Your task to perform on an android device: turn notification dots on Image 0: 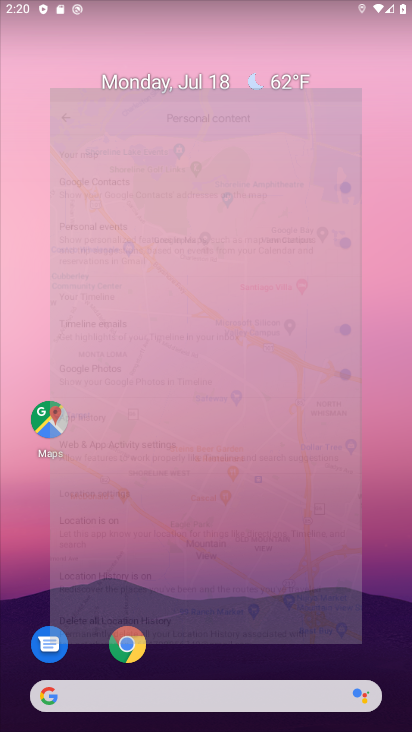
Step 0: drag from (244, 425) to (236, 373)
Your task to perform on an android device: turn notification dots on Image 1: 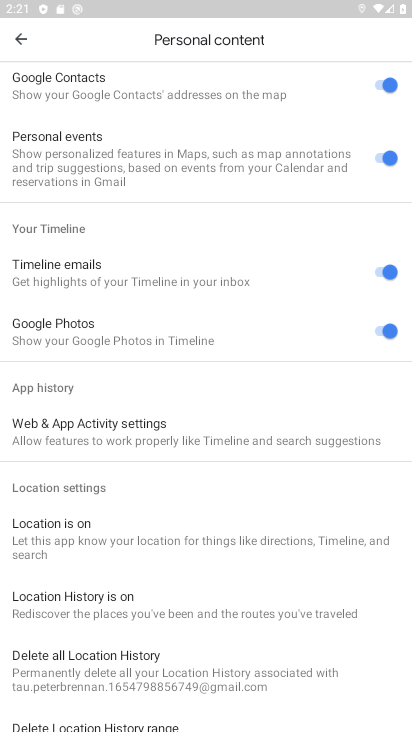
Step 1: click (18, 36)
Your task to perform on an android device: turn notification dots on Image 2: 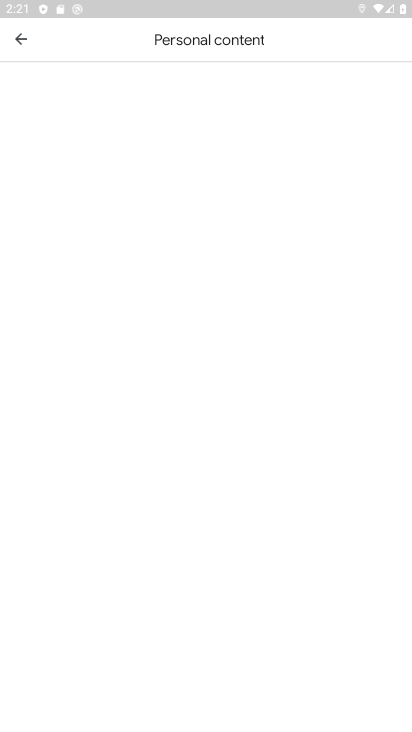
Step 2: click (22, 36)
Your task to perform on an android device: turn notification dots on Image 3: 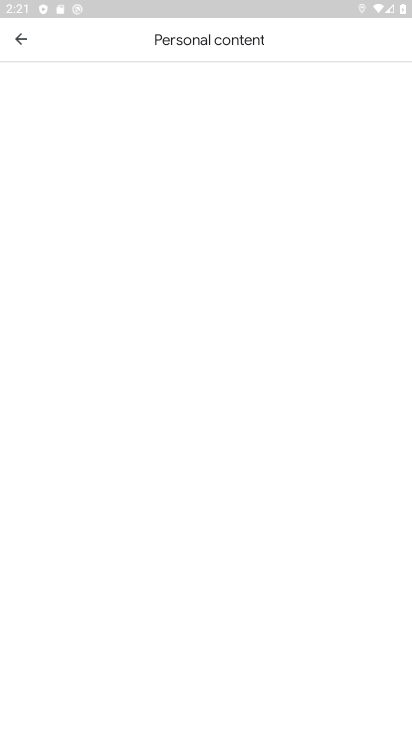
Step 3: click (22, 36)
Your task to perform on an android device: turn notification dots on Image 4: 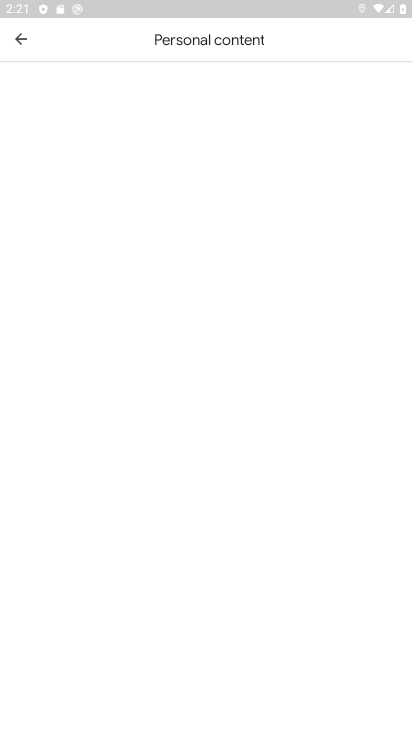
Step 4: click (22, 36)
Your task to perform on an android device: turn notification dots on Image 5: 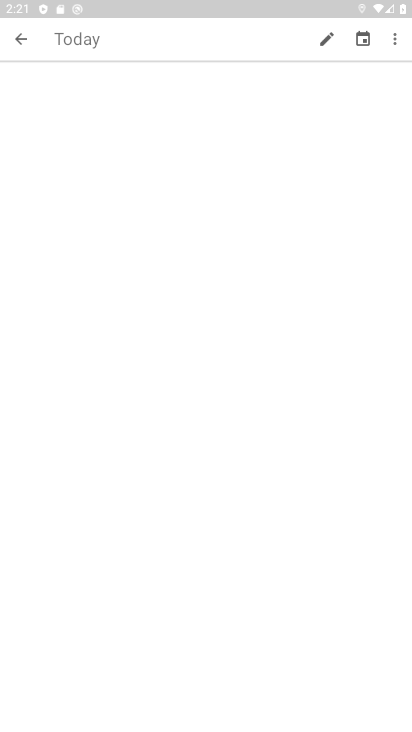
Step 5: click (22, 36)
Your task to perform on an android device: turn notification dots on Image 6: 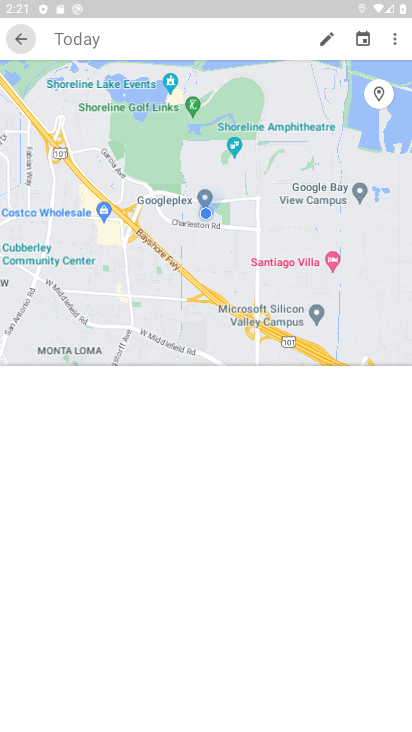
Step 6: click (22, 36)
Your task to perform on an android device: turn notification dots on Image 7: 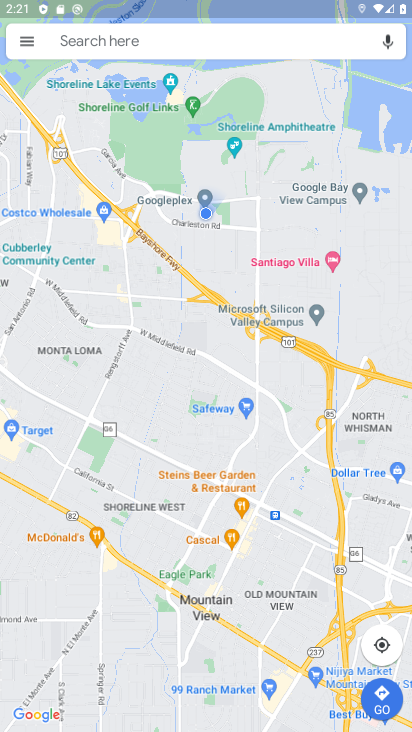
Step 7: click (22, 36)
Your task to perform on an android device: turn notification dots on Image 8: 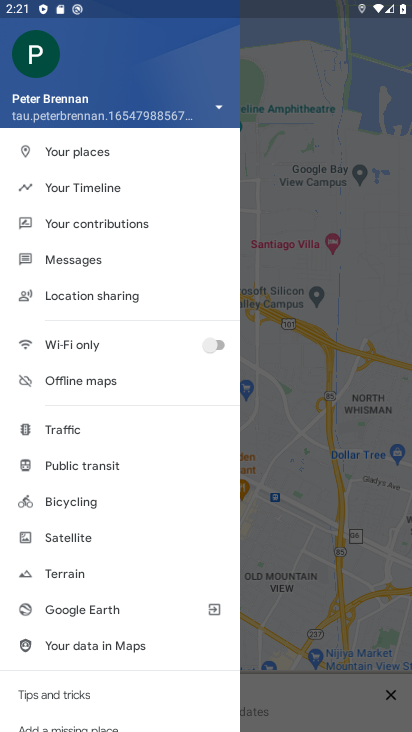
Step 8: press home button
Your task to perform on an android device: turn notification dots on Image 9: 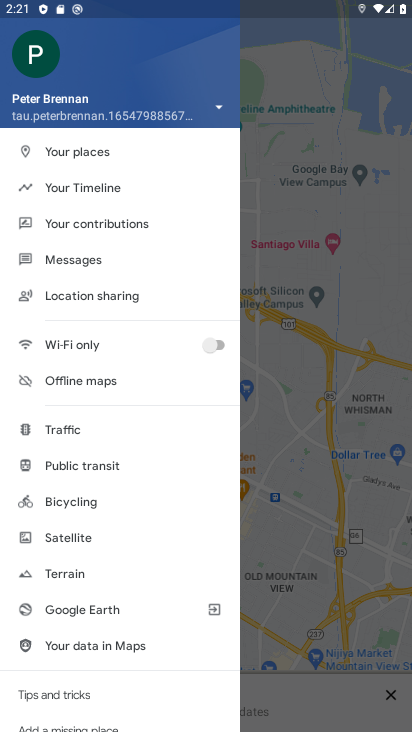
Step 9: press home button
Your task to perform on an android device: turn notification dots on Image 10: 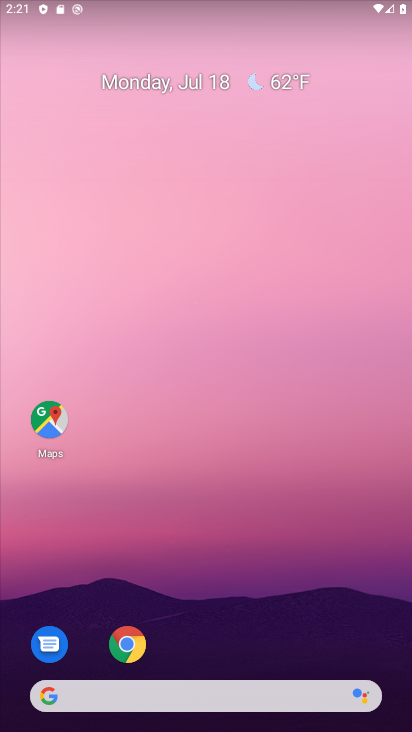
Step 10: drag from (196, 616) to (232, 130)
Your task to perform on an android device: turn notification dots on Image 11: 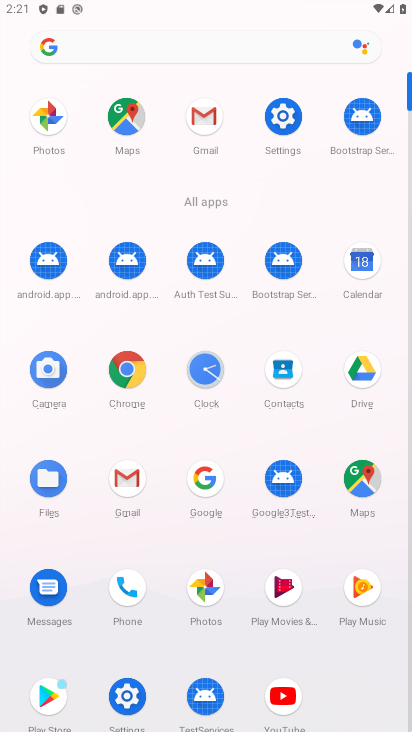
Step 11: click (118, 682)
Your task to perform on an android device: turn notification dots on Image 12: 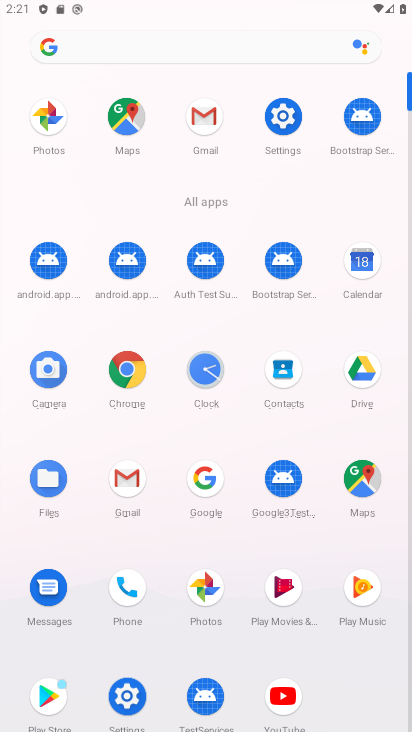
Step 12: click (148, 707)
Your task to perform on an android device: turn notification dots on Image 13: 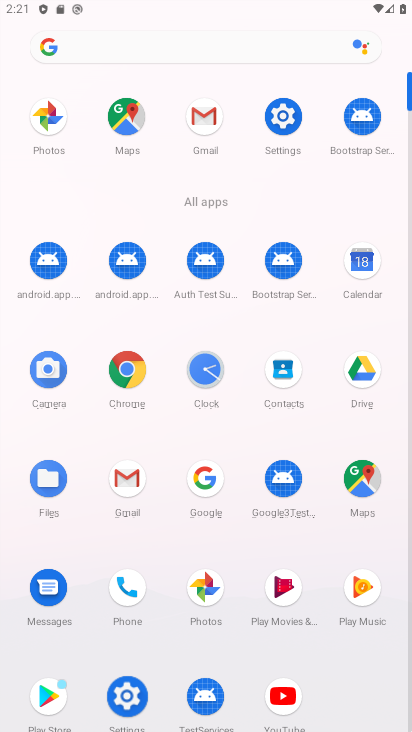
Step 13: click (134, 698)
Your task to perform on an android device: turn notification dots on Image 14: 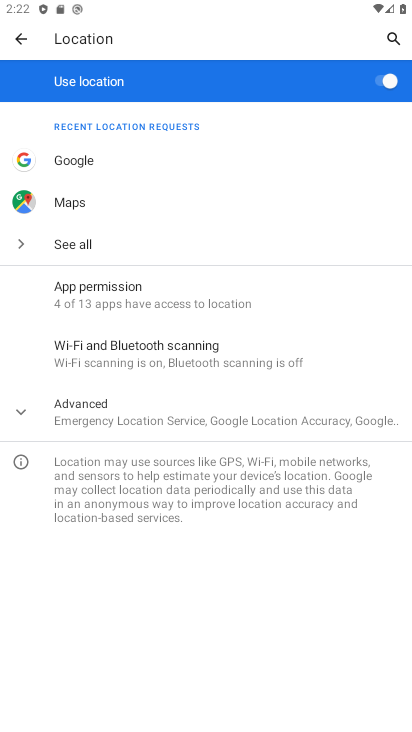
Step 14: click (5, 39)
Your task to perform on an android device: turn notification dots on Image 15: 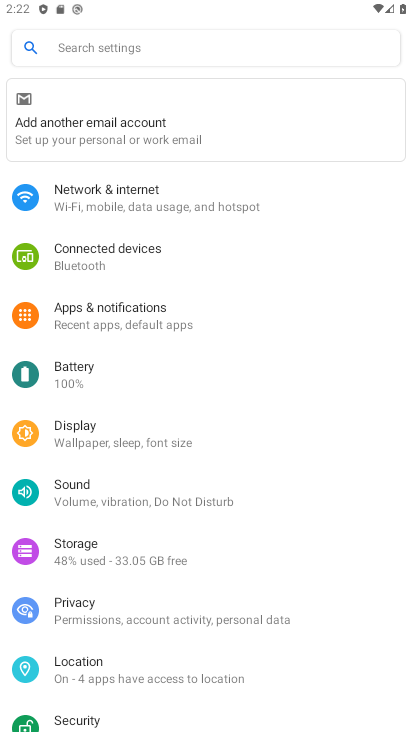
Step 15: click (96, 311)
Your task to perform on an android device: turn notification dots on Image 16: 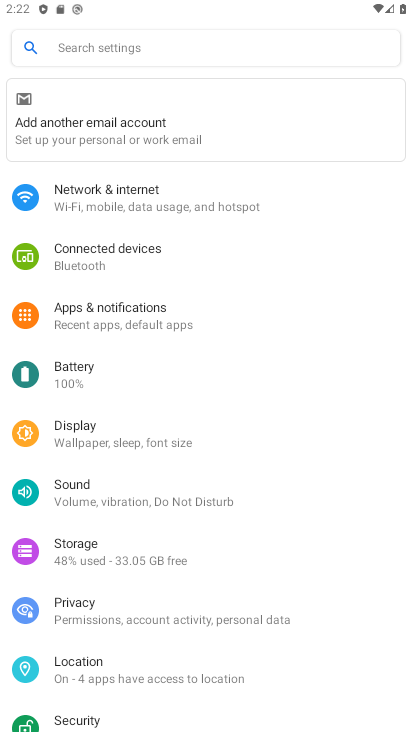
Step 16: click (116, 314)
Your task to perform on an android device: turn notification dots on Image 17: 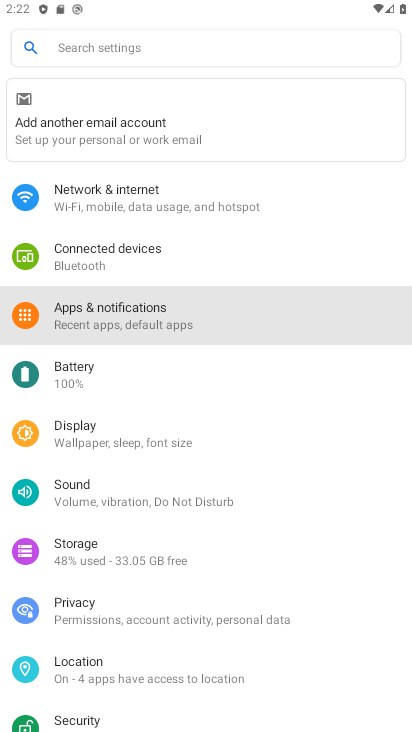
Step 17: click (120, 312)
Your task to perform on an android device: turn notification dots on Image 18: 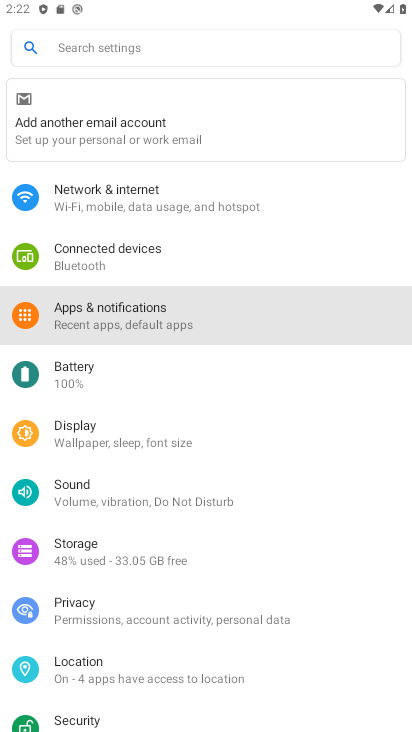
Step 18: click (109, 308)
Your task to perform on an android device: turn notification dots on Image 19: 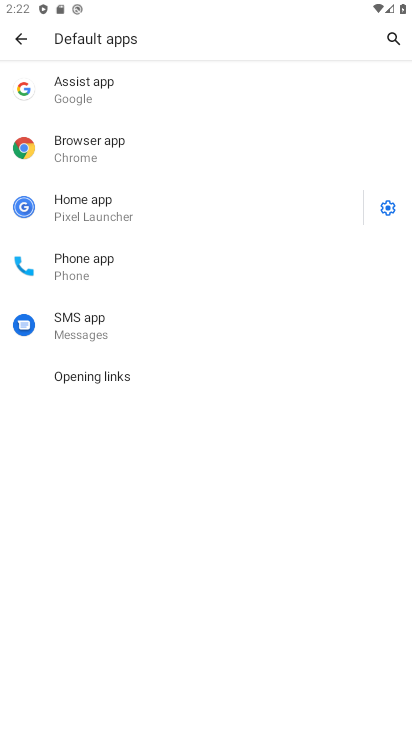
Step 19: click (16, 32)
Your task to perform on an android device: turn notification dots on Image 20: 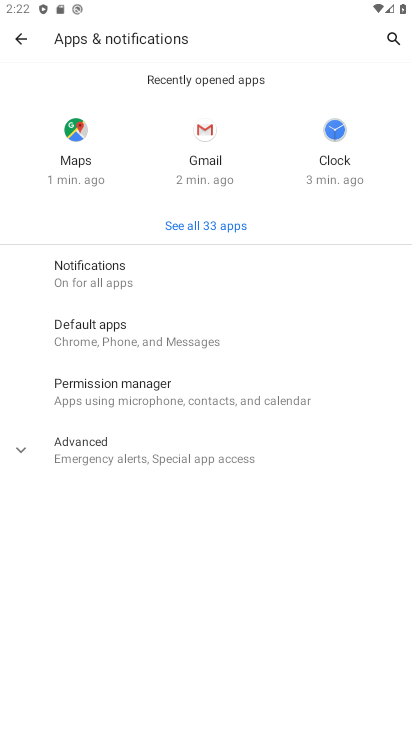
Step 20: click (81, 281)
Your task to perform on an android device: turn notification dots on Image 21: 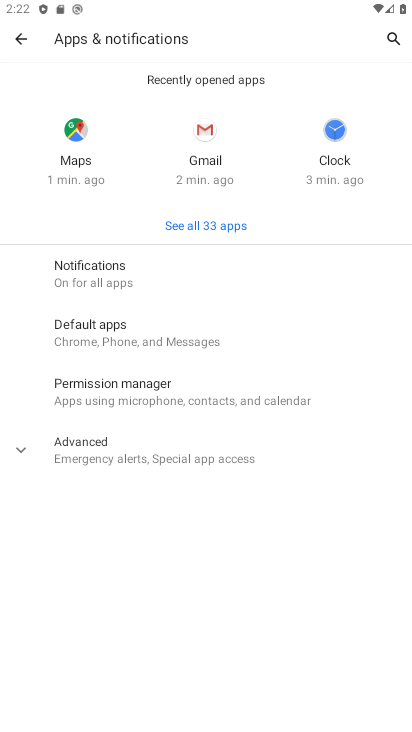
Step 21: click (87, 276)
Your task to perform on an android device: turn notification dots on Image 22: 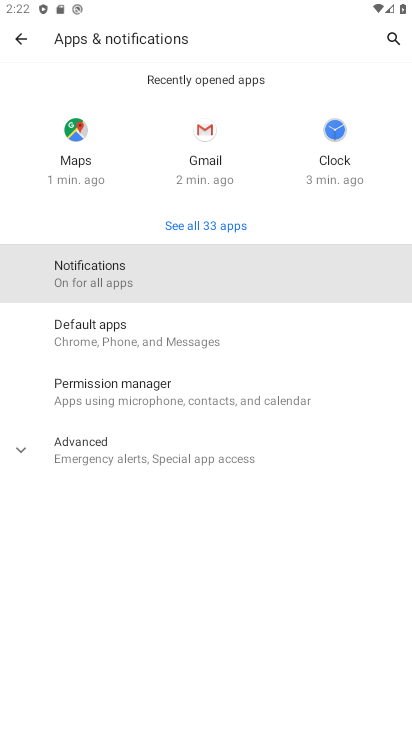
Step 22: click (87, 276)
Your task to perform on an android device: turn notification dots on Image 23: 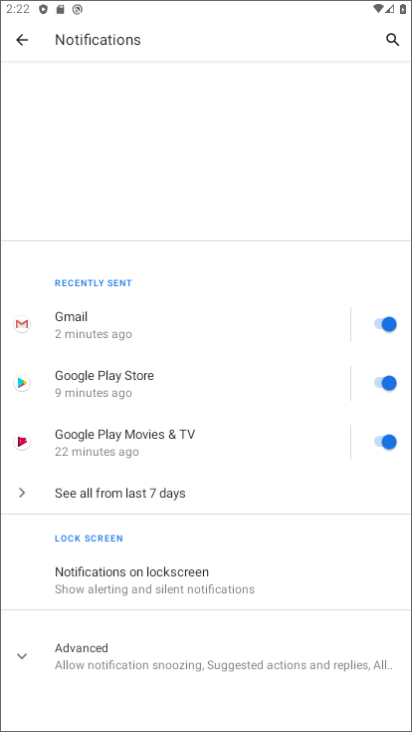
Step 23: click (89, 275)
Your task to perform on an android device: turn notification dots on Image 24: 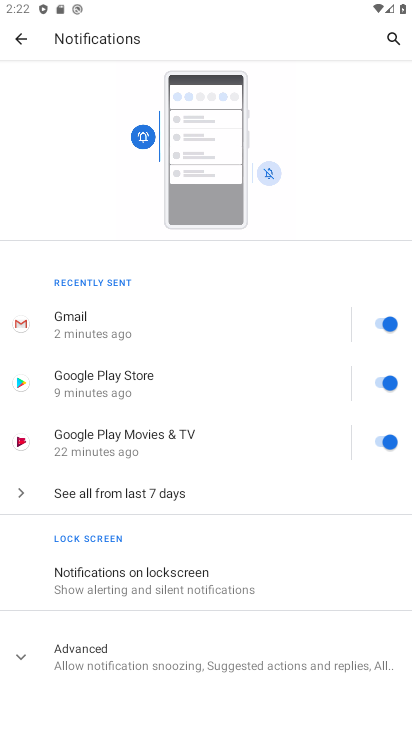
Step 24: click (128, 653)
Your task to perform on an android device: turn notification dots on Image 25: 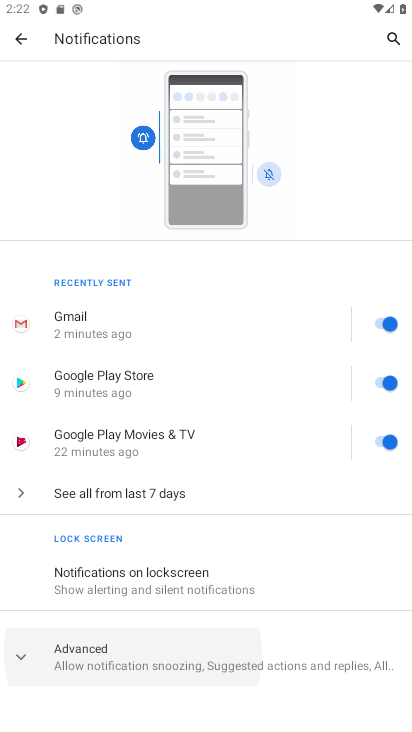
Step 25: click (128, 653)
Your task to perform on an android device: turn notification dots on Image 26: 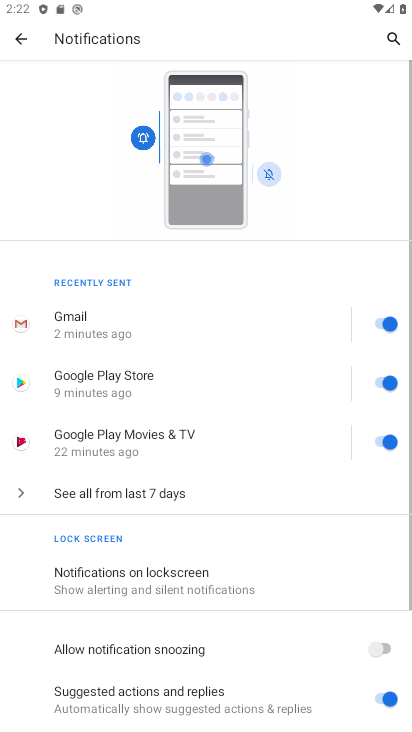
Step 26: click (128, 653)
Your task to perform on an android device: turn notification dots on Image 27: 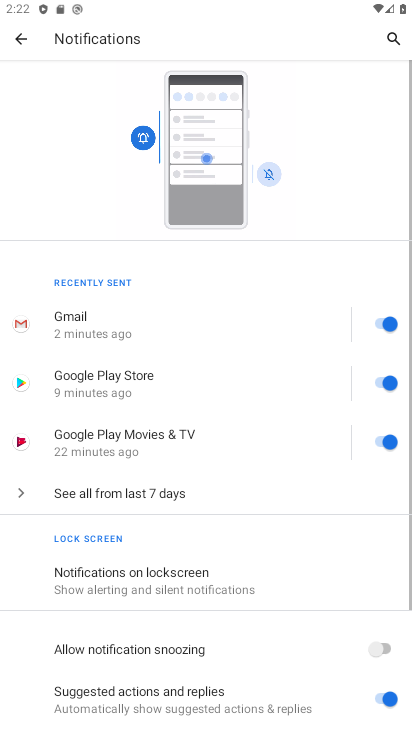
Step 27: click (128, 653)
Your task to perform on an android device: turn notification dots on Image 28: 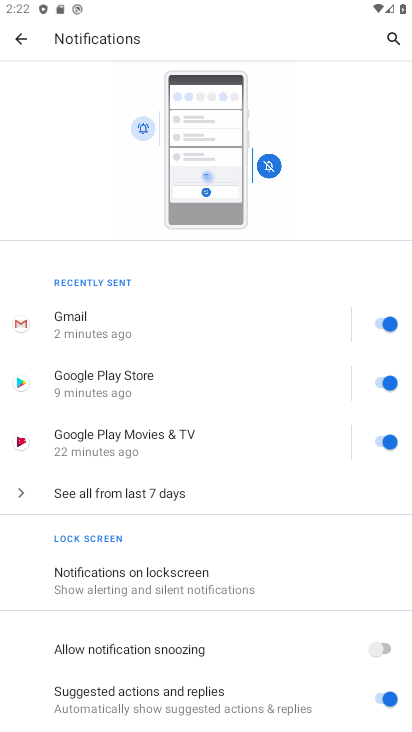
Step 28: drag from (196, 648) to (220, 445)
Your task to perform on an android device: turn notification dots on Image 29: 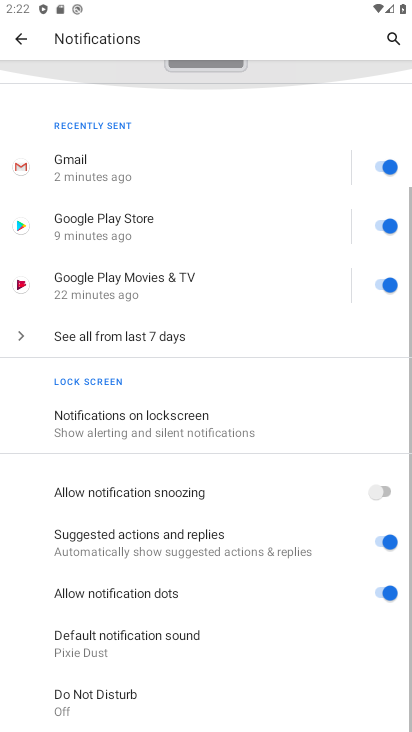
Step 29: drag from (135, 579) to (141, 538)
Your task to perform on an android device: turn notification dots on Image 30: 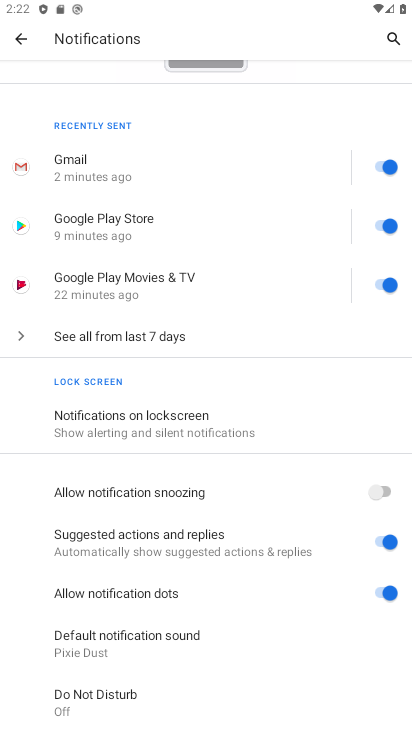
Step 30: click (390, 592)
Your task to perform on an android device: turn notification dots on Image 31: 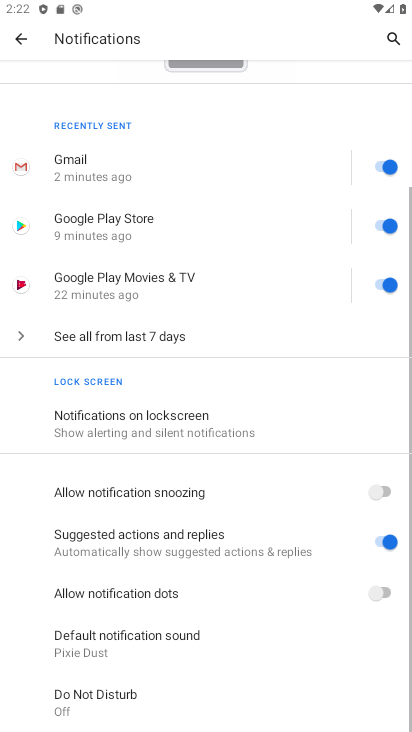
Step 31: click (380, 590)
Your task to perform on an android device: turn notification dots on Image 32: 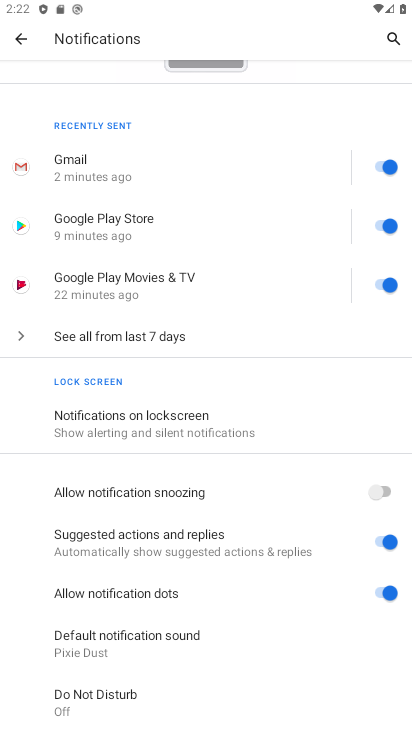
Step 32: task complete